Your task to perform on an android device: Open Google Maps Image 0: 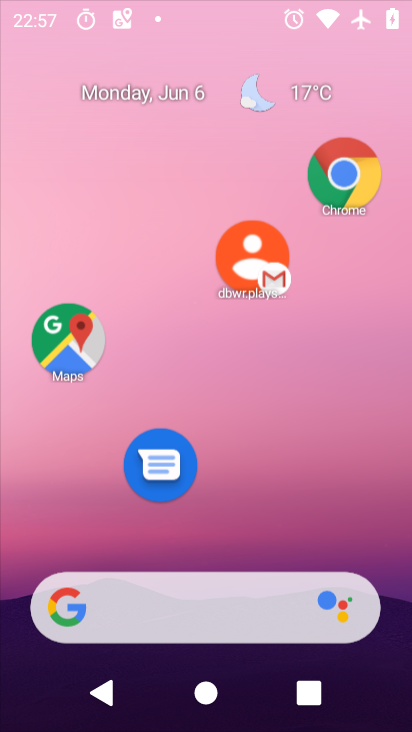
Step 0: click (165, 7)
Your task to perform on an android device: Open Google Maps Image 1: 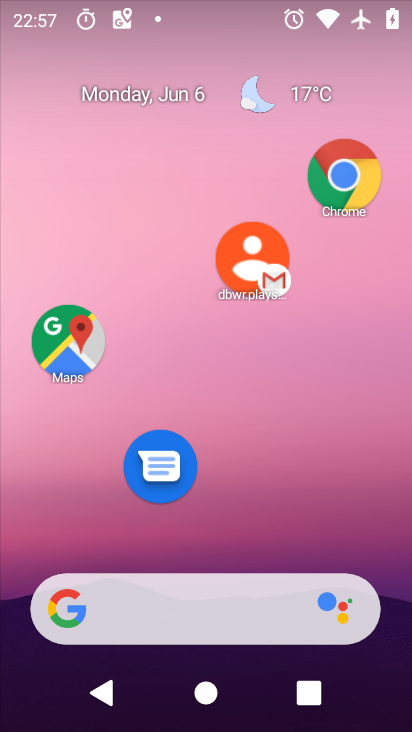
Step 1: drag from (227, 530) to (191, 30)
Your task to perform on an android device: Open Google Maps Image 2: 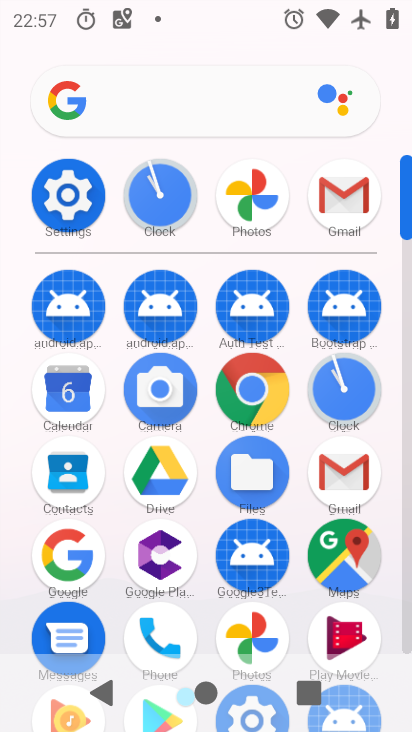
Step 2: click (353, 557)
Your task to perform on an android device: Open Google Maps Image 3: 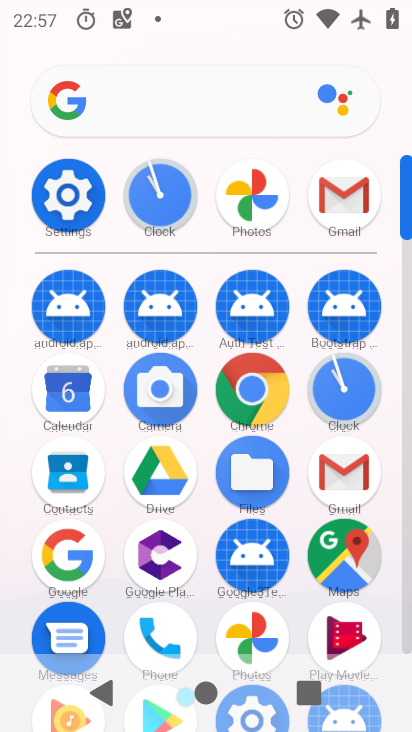
Step 3: click (353, 557)
Your task to perform on an android device: Open Google Maps Image 4: 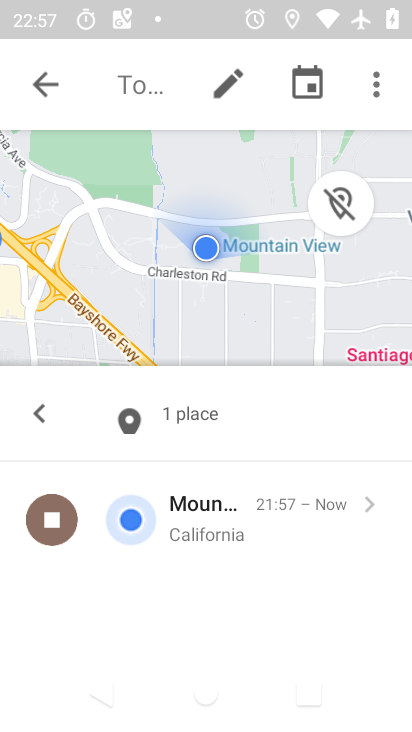
Step 4: task complete